Your task to perform on an android device: turn notification dots off Image 0: 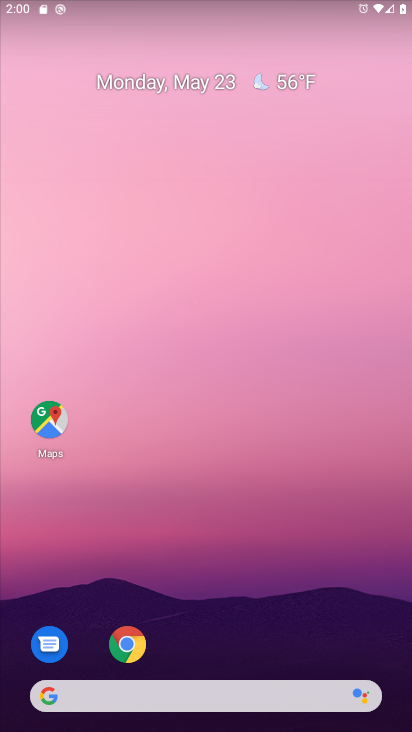
Step 0: drag from (200, 625) to (310, 137)
Your task to perform on an android device: turn notification dots off Image 1: 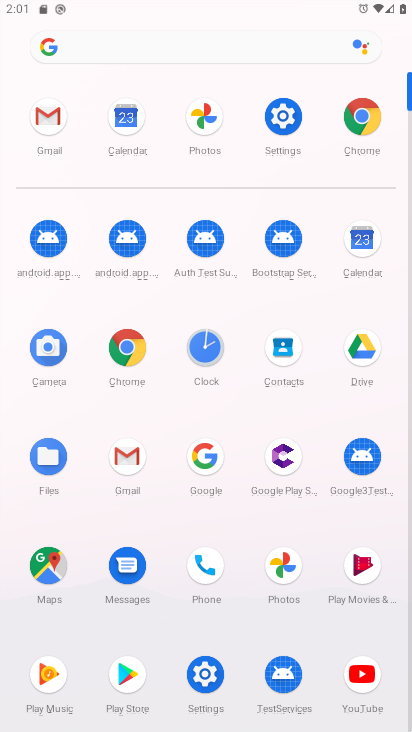
Step 1: click (291, 130)
Your task to perform on an android device: turn notification dots off Image 2: 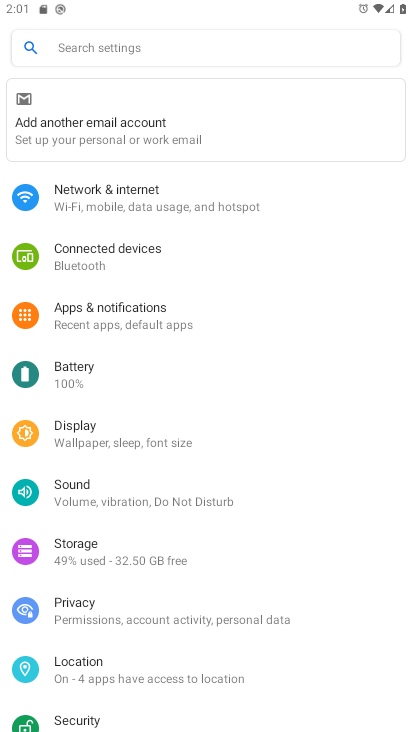
Step 2: click (91, 310)
Your task to perform on an android device: turn notification dots off Image 3: 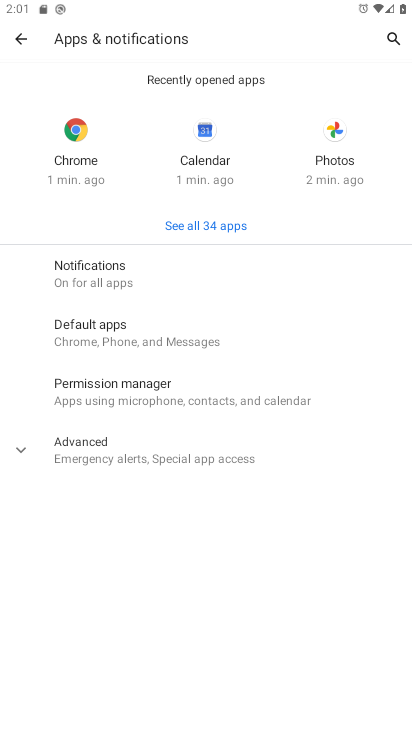
Step 3: click (99, 285)
Your task to perform on an android device: turn notification dots off Image 4: 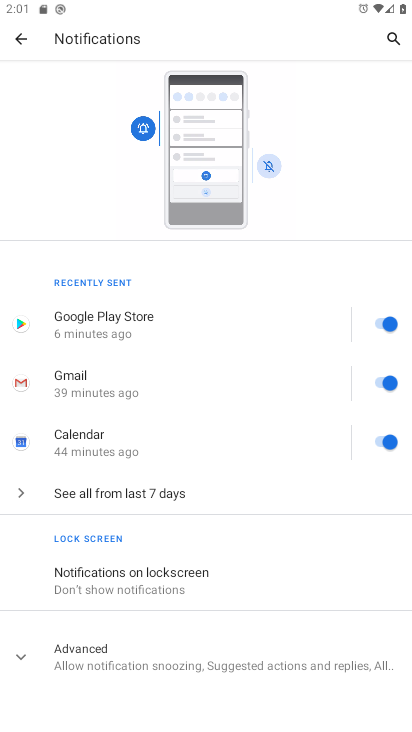
Step 4: click (79, 660)
Your task to perform on an android device: turn notification dots off Image 5: 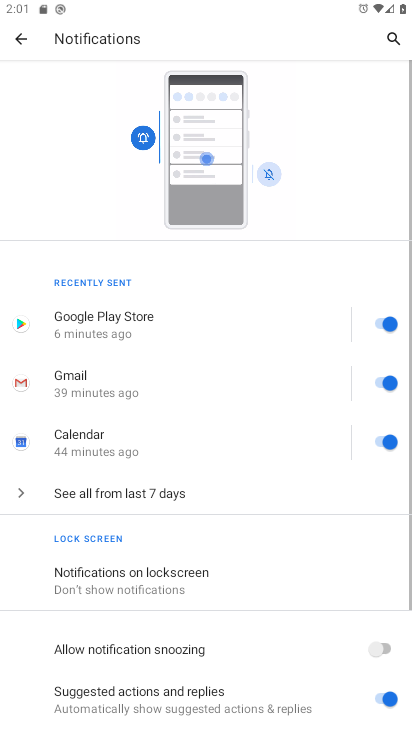
Step 5: drag from (79, 660) to (102, 419)
Your task to perform on an android device: turn notification dots off Image 6: 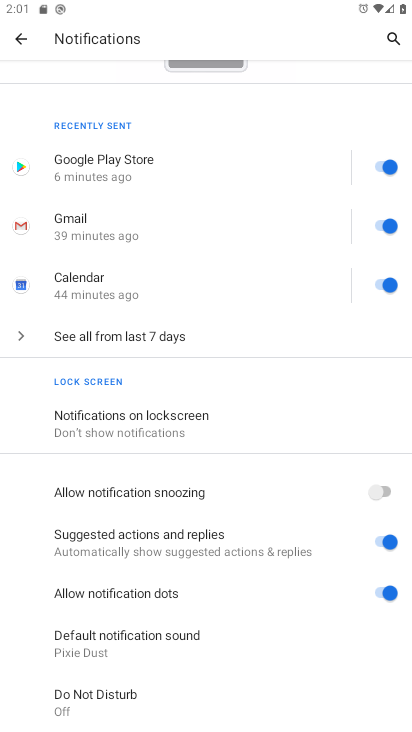
Step 6: click (377, 593)
Your task to perform on an android device: turn notification dots off Image 7: 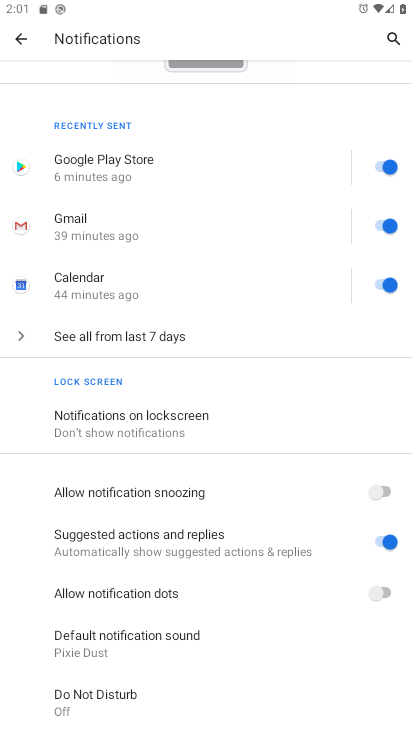
Step 7: task complete